Your task to perform on an android device: add a label to a message in the gmail app Image 0: 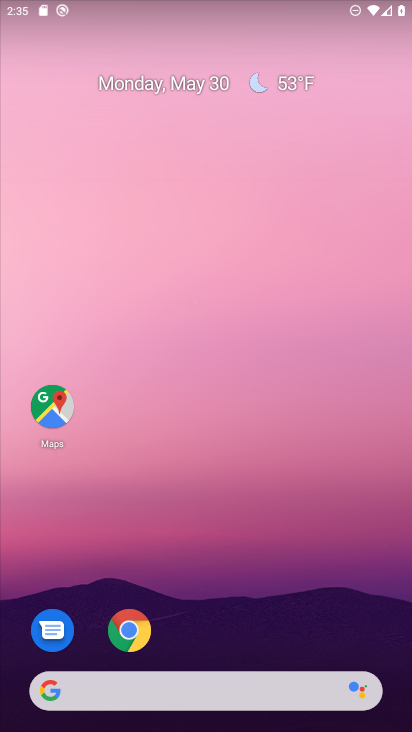
Step 0: drag from (220, 683) to (256, 19)
Your task to perform on an android device: add a label to a message in the gmail app Image 1: 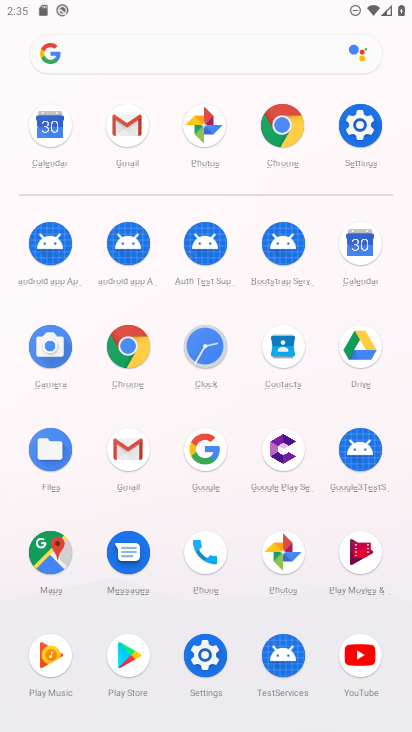
Step 1: click (132, 438)
Your task to perform on an android device: add a label to a message in the gmail app Image 2: 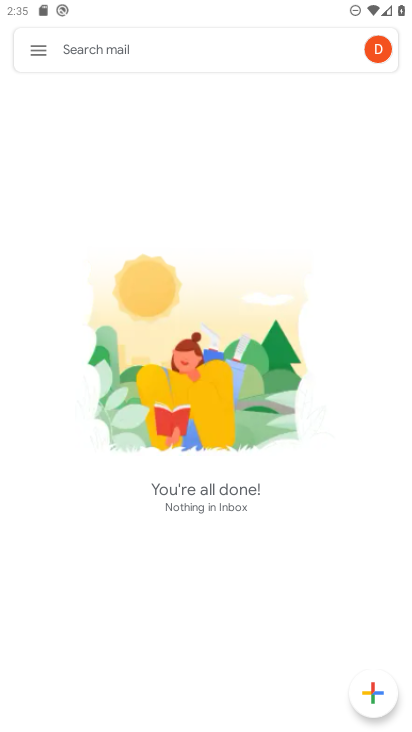
Step 2: click (33, 45)
Your task to perform on an android device: add a label to a message in the gmail app Image 3: 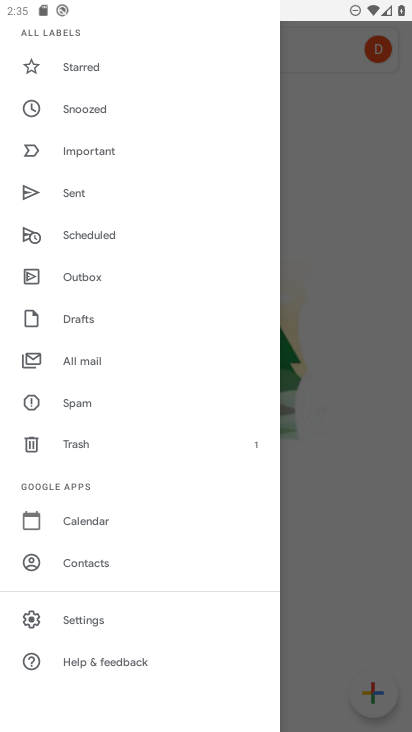
Step 3: click (99, 355)
Your task to perform on an android device: add a label to a message in the gmail app Image 4: 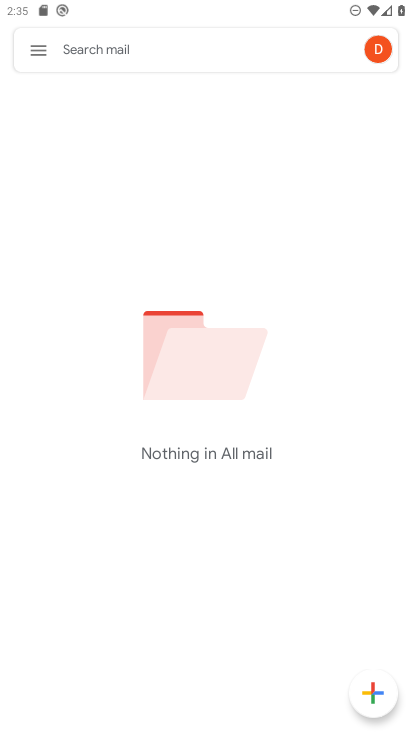
Step 4: task complete